Your task to perform on an android device: delete a single message in the gmail app Image 0: 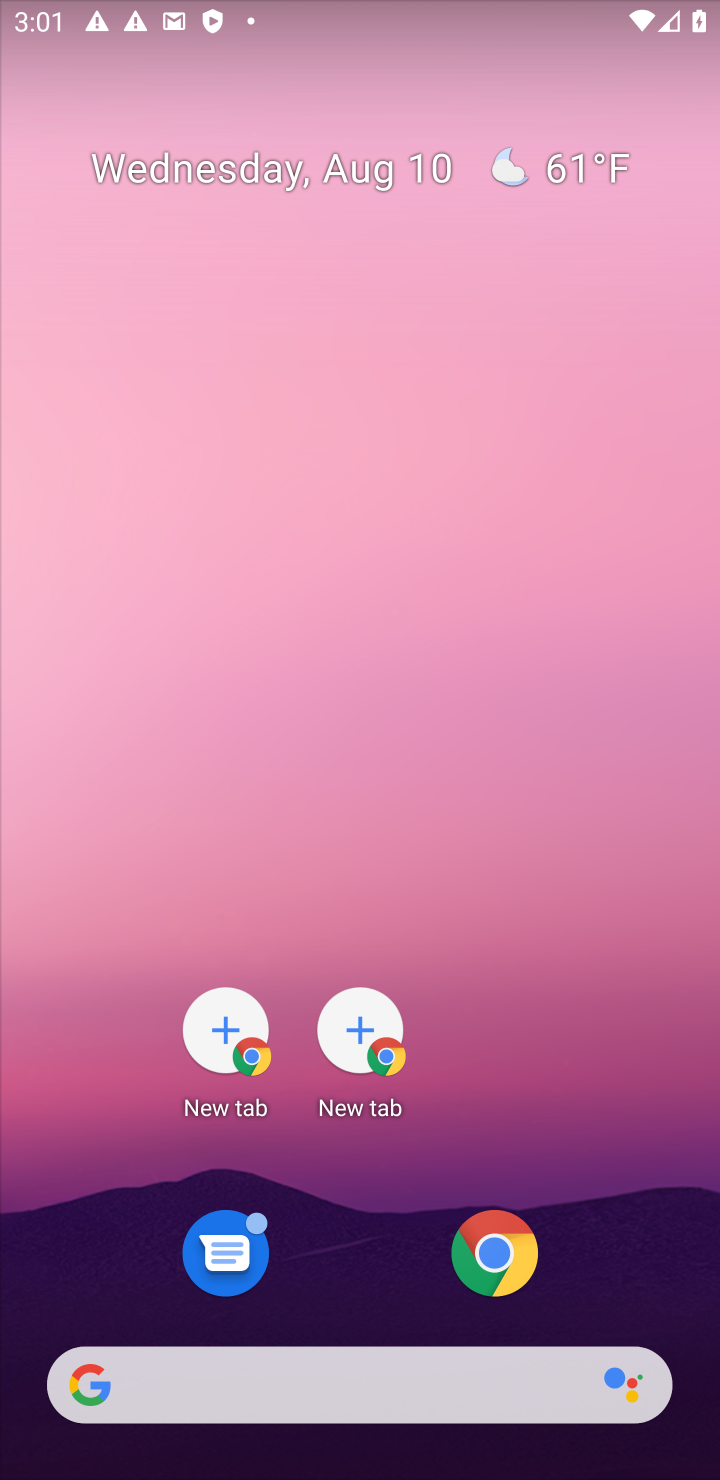
Step 0: drag from (486, 1043) to (398, 683)
Your task to perform on an android device: delete a single message in the gmail app Image 1: 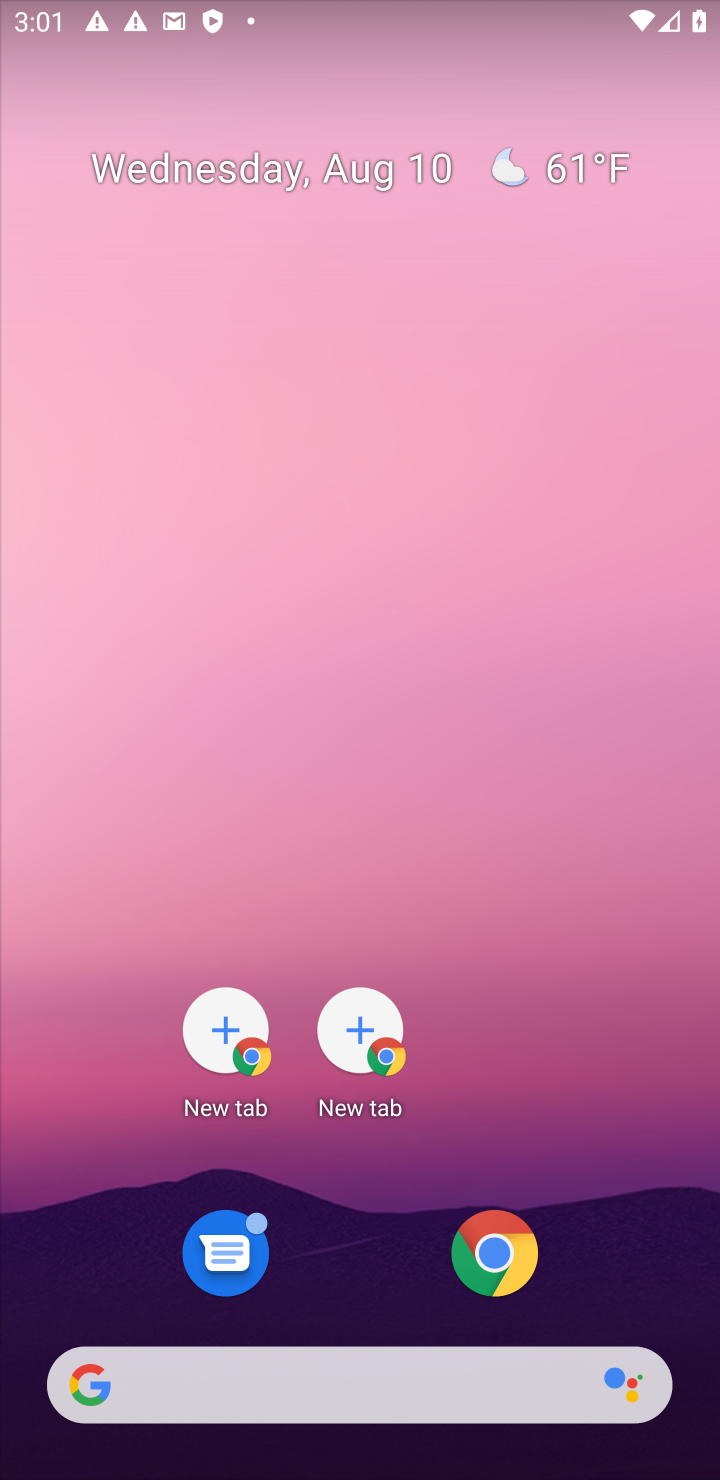
Step 1: drag from (465, 1010) to (571, 185)
Your task to perform on an android device: delete a single message in the gmail app Image 2: 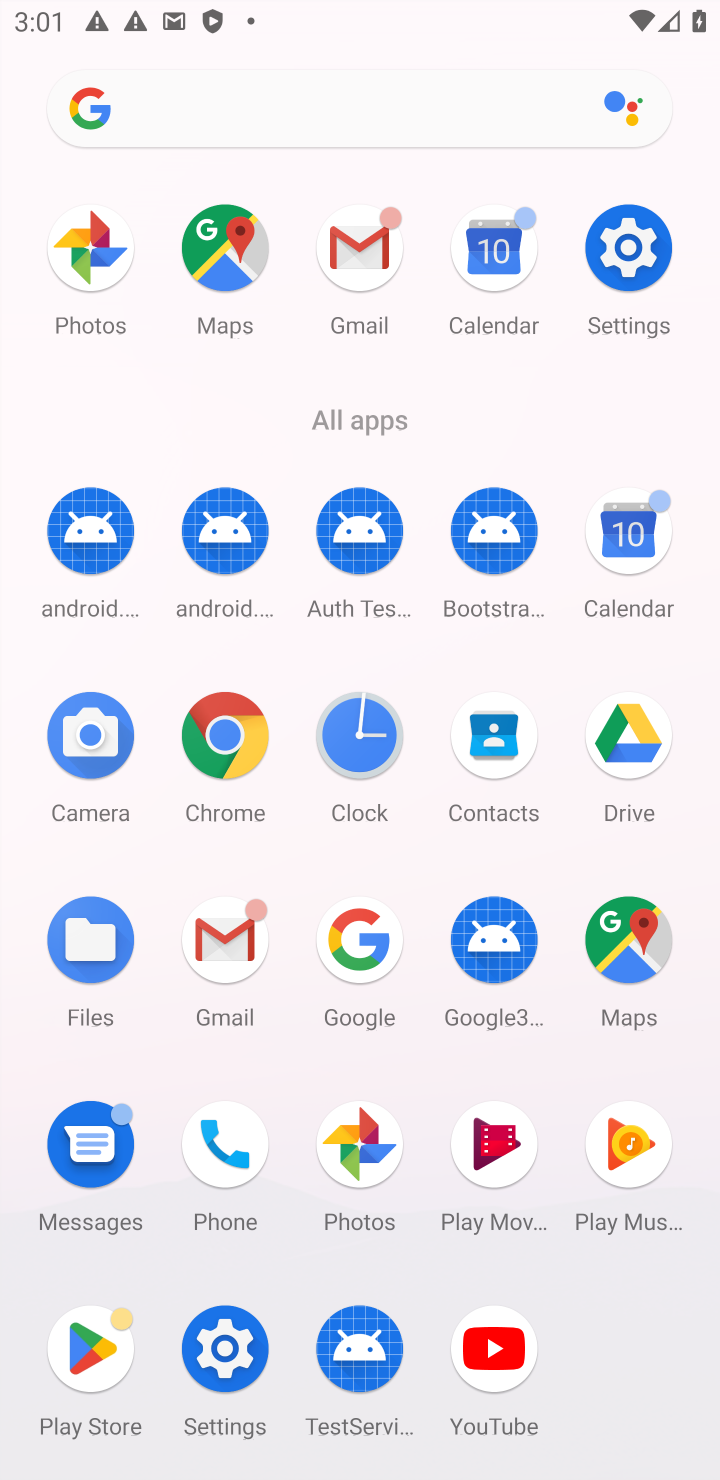
Step 2: click (241, 947)
Your task to perform on an android device: delete a single message in the gmail app Image 3: 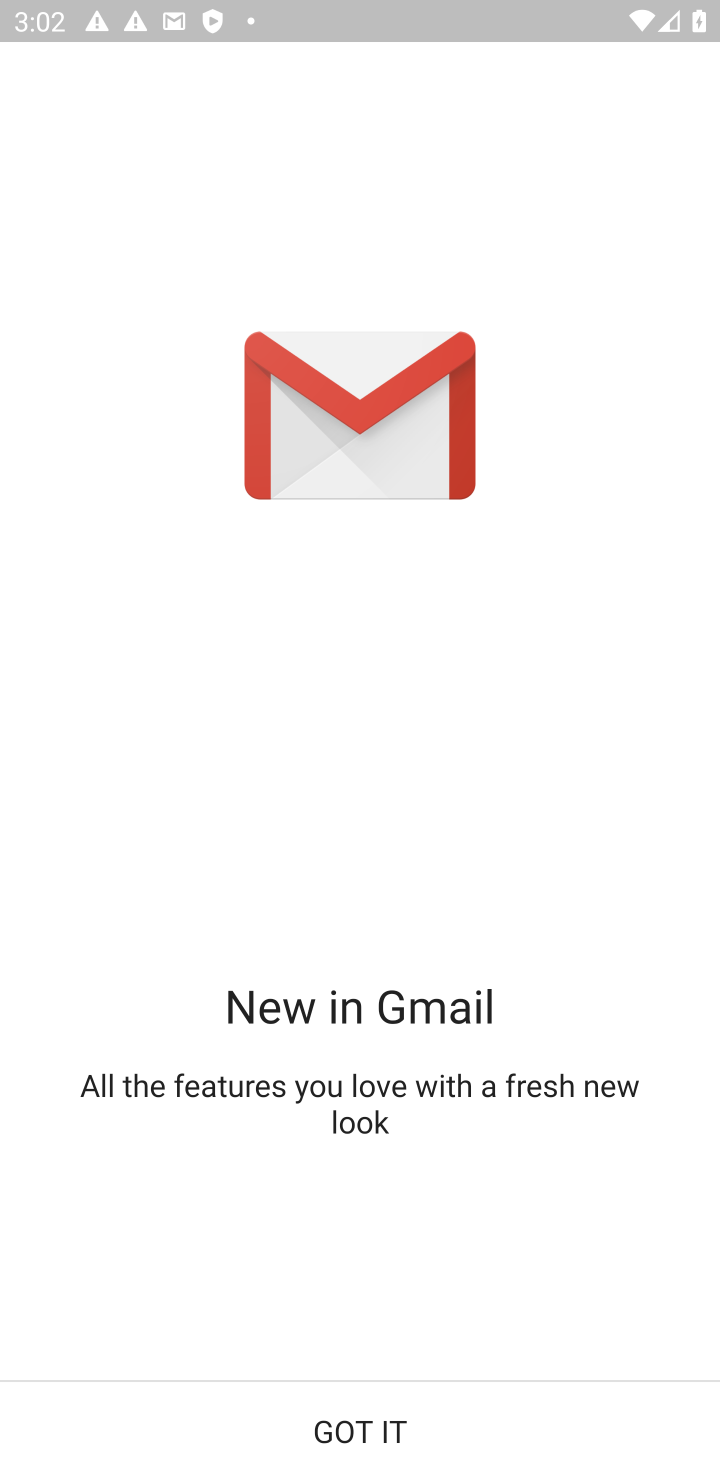
Step 3: click (390, 1447)
Your task to perform on an android device: delete a single message in the gmail app Image 4: 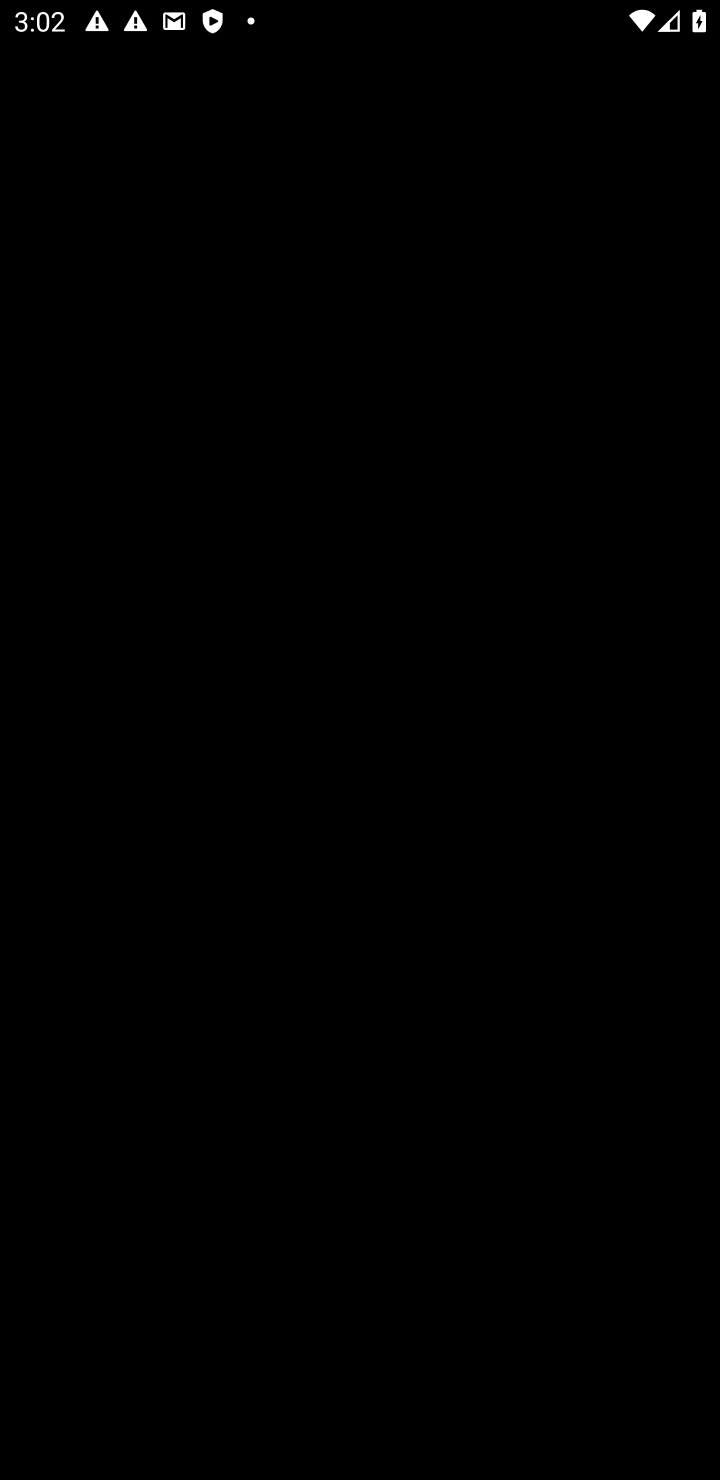
Step 4: task complete